Your task to perform on an android device: Is it going to rain tomorrow? Image 0: 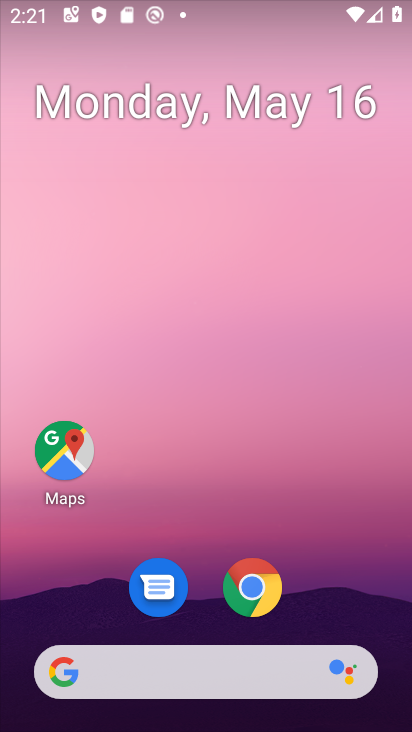
Step 0: drag from (407, 660) to (315, 261)
Your task to perform on an android device: Is it going to rain tomorrow? Image 1: 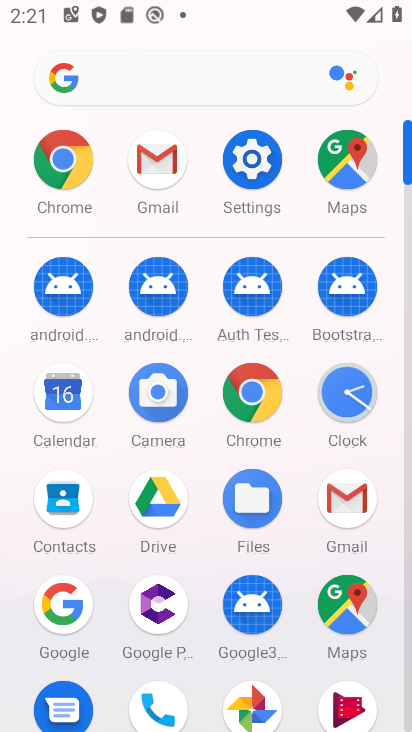
Step 1: press back button
Your task to perform on an android device: Is it going to rain tomorrow? Image 2: 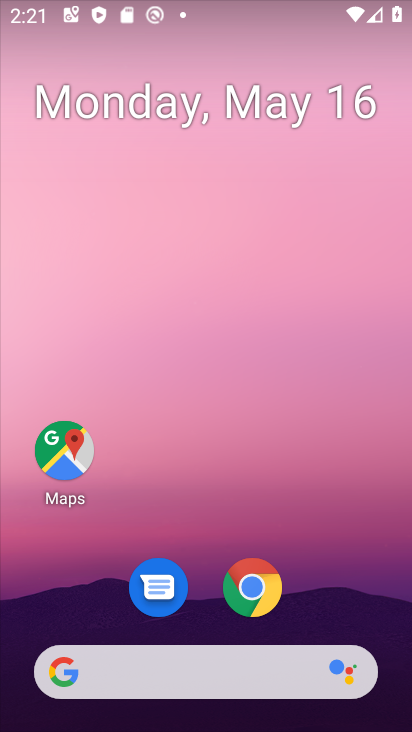
Step 2: drag from (44, 198) to (392, 277)
Your task to perform on an android device: Is it going to rain tomorrow? Image 3: 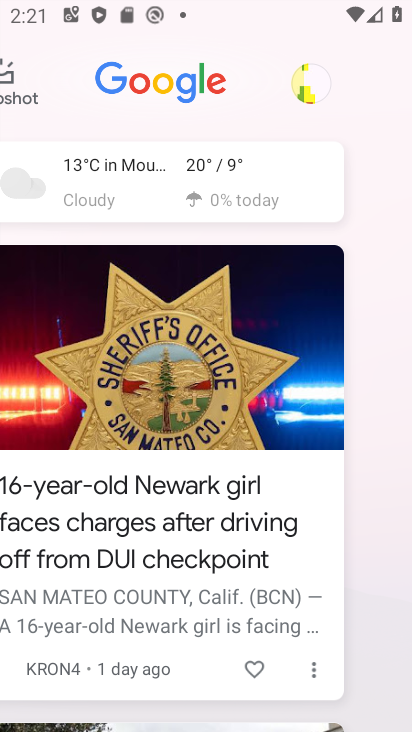
Step 3: click (98, 191)
Your task to perform on an android device: Is it going to rain tomorrow? Image 4: 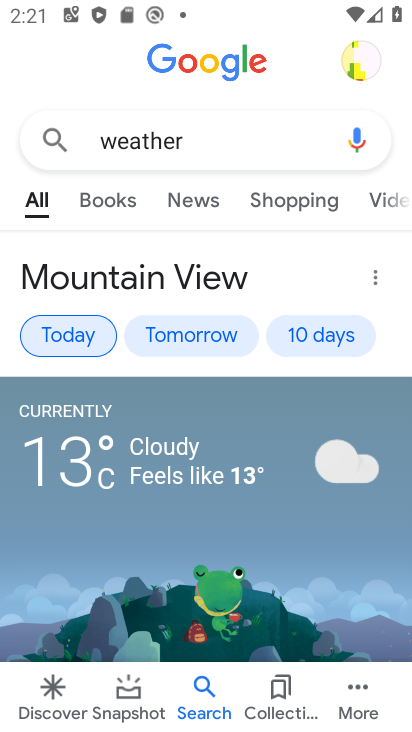
Step 4: drag from (252, 532) to (209, 101)
Your task to perform on an android device: Is it going to rain tomorrow? Image 5: 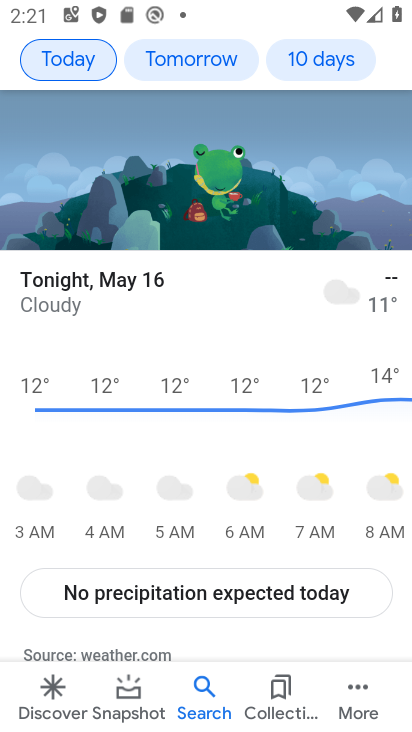
Step 5: drag from (268, 333) to (245, 130)
Your task to perform on an android device: Is it going to rain tomorrow? Image 6: 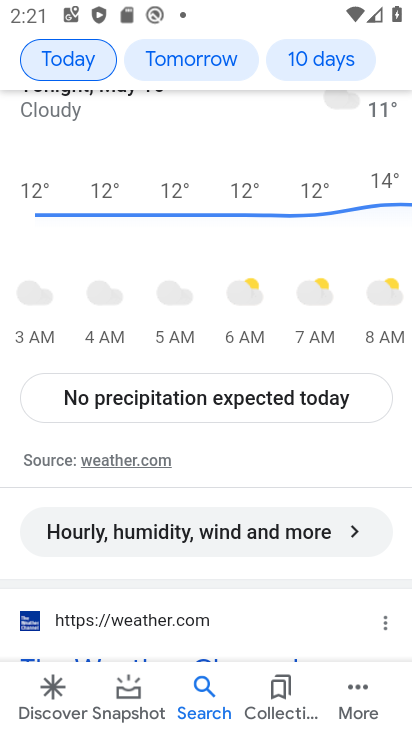
Step 6: drag from (287, 432) to (292, 200)
Your task to perform on an android device: Is it going to rain tomorrow? Image 7: 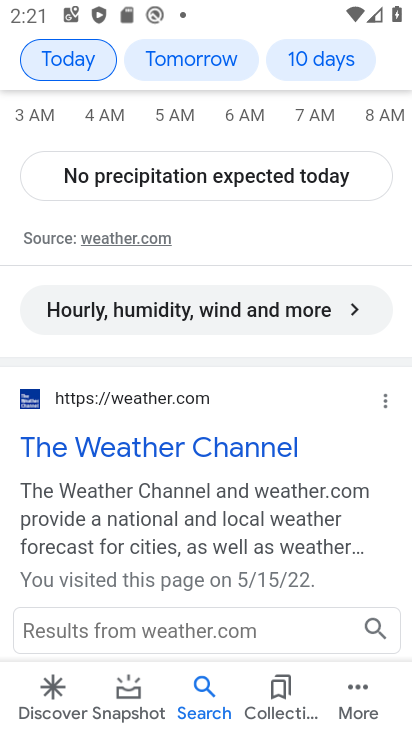
Step 7: drag from (167, 467) to (157, 150)
Your task to perform on an android device: Is it going to rain tomorrow? Image 8: 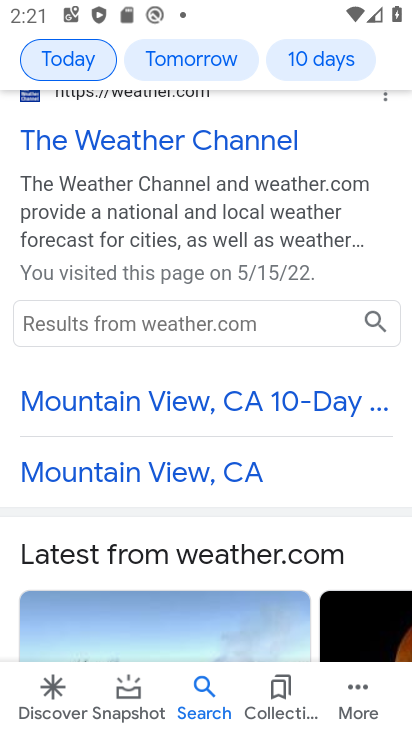
Step 8: drag from (213, 321) to (216, 228)
Your task to perform on an android device: Is it going to rain tomorrow? Image 9: 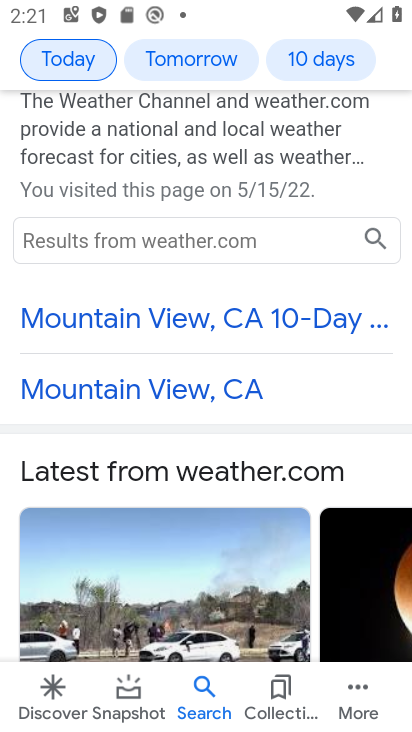
Step 9: drag from (222, 509) to (189, 184)
Your task to perform on an android device: Is it going to rain tomorrow? Image 10: 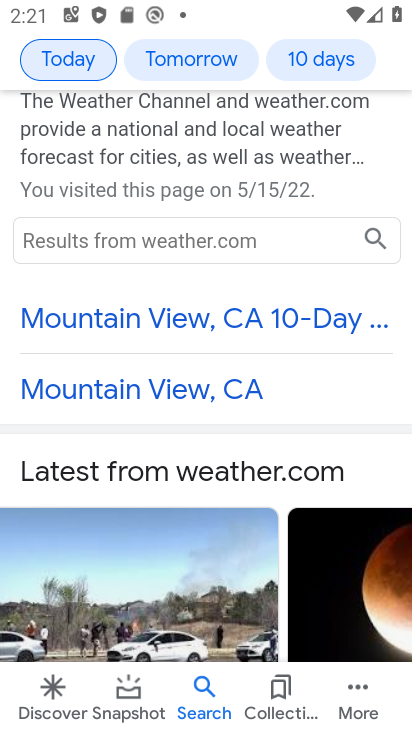
Step 10: drag from (199, 362) to (148, 172)
Your task to perform on an android device: Is it going to rain tomorrow? Image 11: 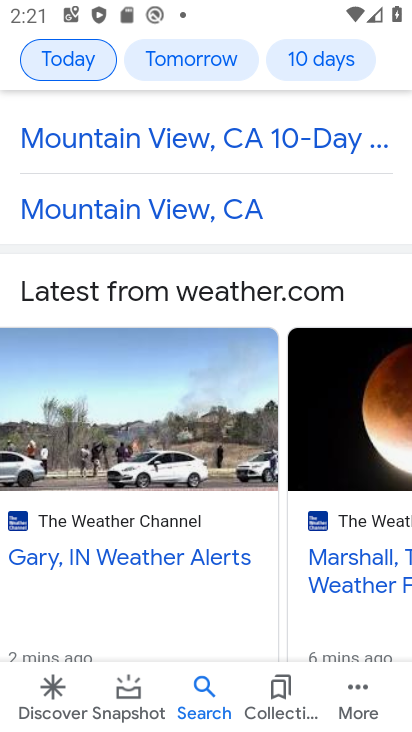
Step 11: drag from (197, 415) to (217, 123)
Your task to perform on an android device: Is it going to rain tomorrow? Image 12: 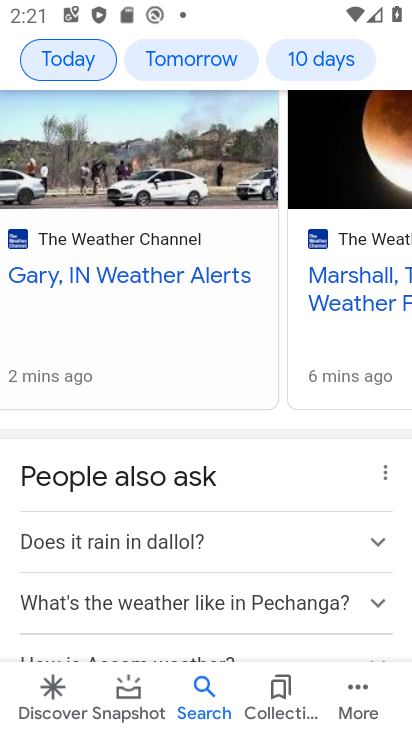
Step 12: drag from (226, 360) to (229, 172)
Your task to perform on an android device: Is it going to rain tomorrow? Image 13: 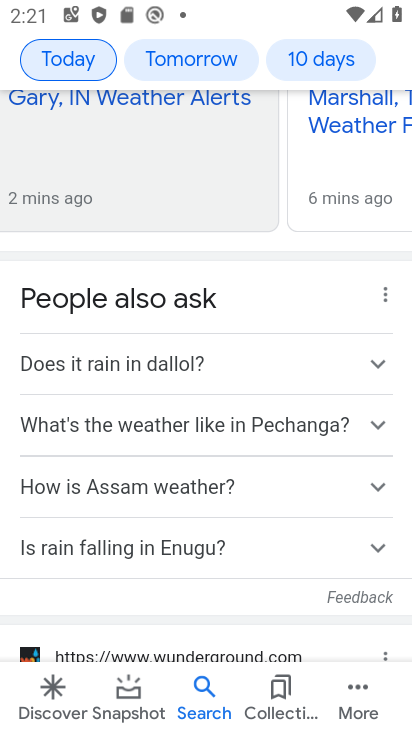
Step 13: drag from (269, 438) to (270, 233)
Your task to perform on an android device: Is it going to rain tomorrow? Image 14: 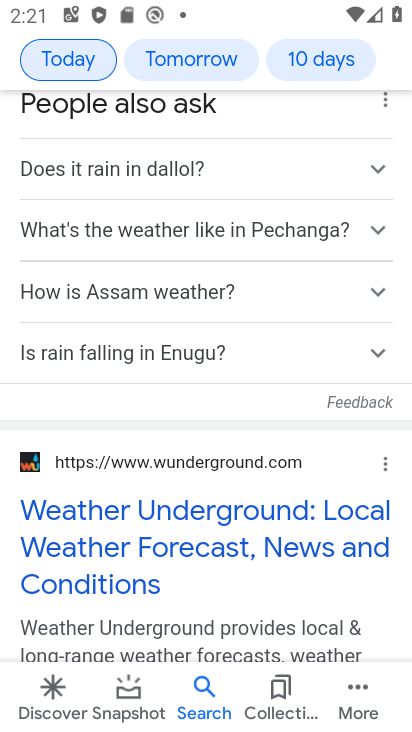
Step 14: drag from (323, 159) to (325, 529)
Your task to perform on an android device: Is it going to rain tomorrow? Image 15: 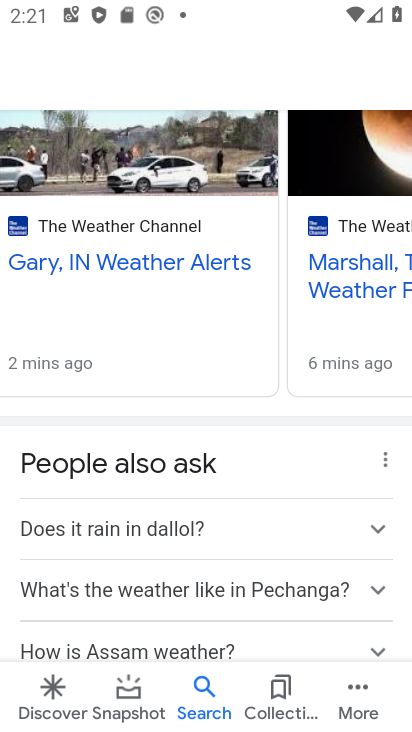
Step 15: drag from (287, 275) to (287, 607)
Your task to perform on an android device: Is it going to rain tomorrow? Image 16: 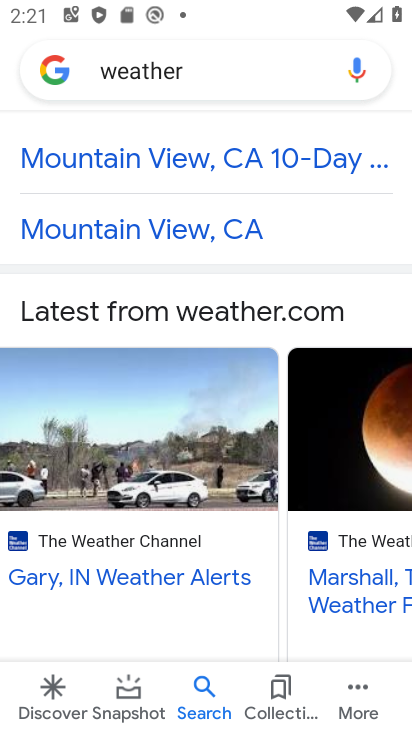
Step 16: drag from (267, 233) to (279, 648)
Your task to perform on an android device: Is it going to rain tomorrow? Image 17: 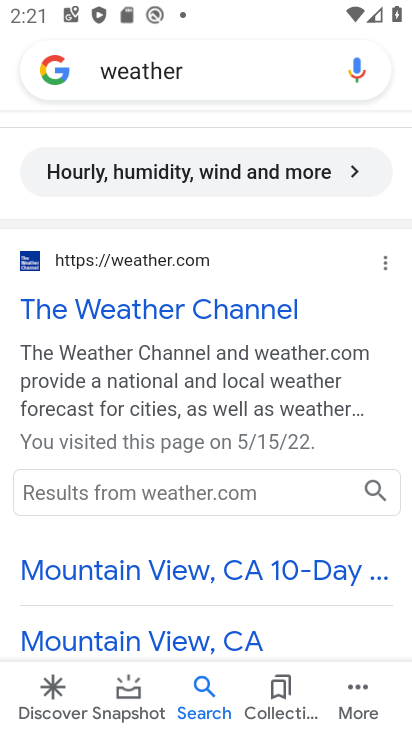
Step 17: drag from (232, 488) to (241, 656)
Your task to perform on an android device: Is it going to rain tomorrow? Image 18: 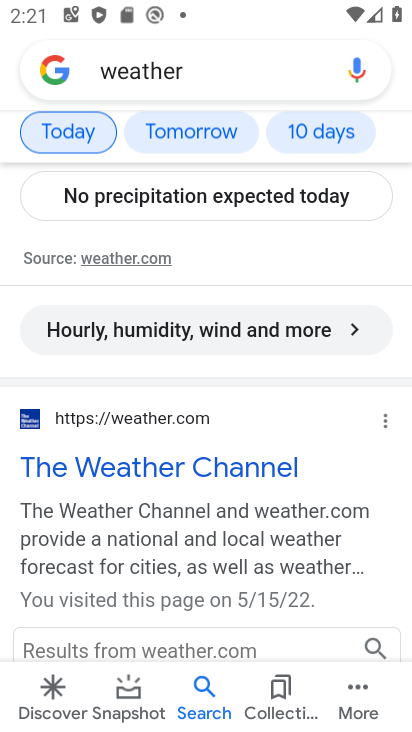
Step 18: click (316, 136)
Your task to perform on an android device: Is it going to rain tomorrow? Image 19: 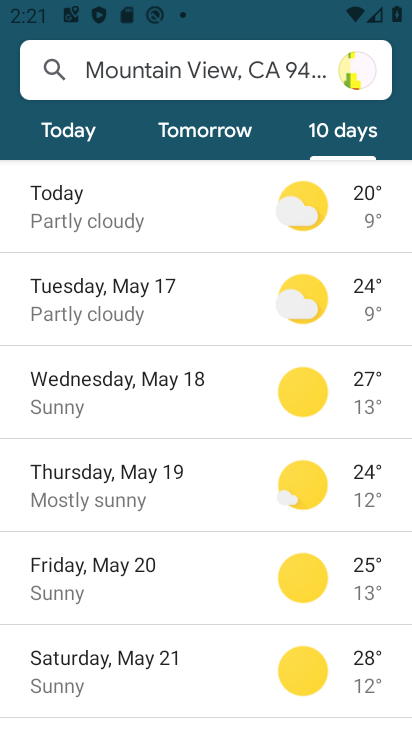
Step 19: task complete